Your task to perform on an android device: toggle improve location accuracy Image 0: 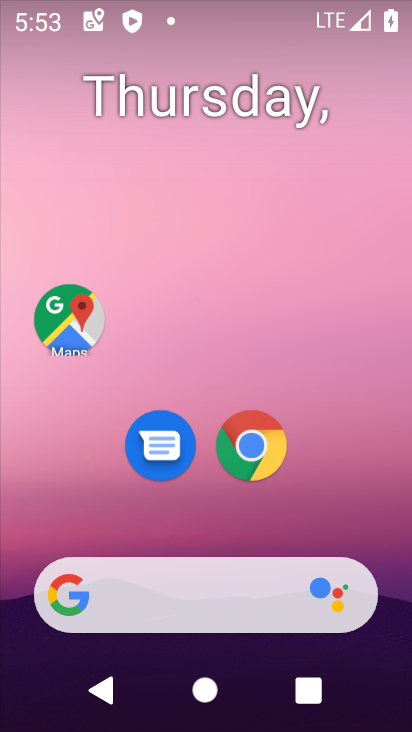
Step 0: drag from (309, 514) to (321, 85)
Your task to perform on an android device: toggle improve location accuracy Image 1: 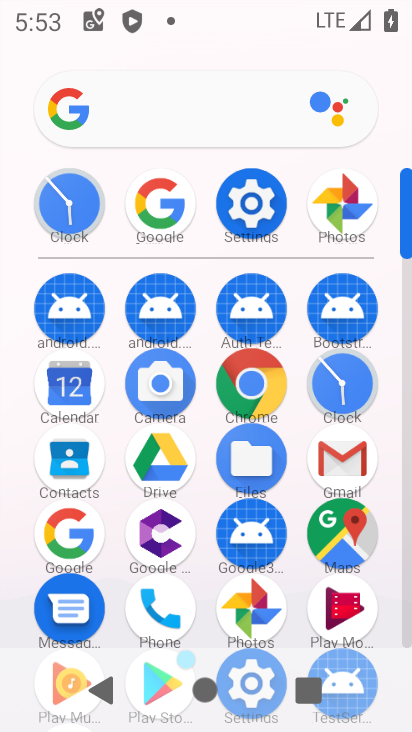
Step 1: click (247, 211)
Your task to perform on an android device: toggle improve location accuracy Image 2: 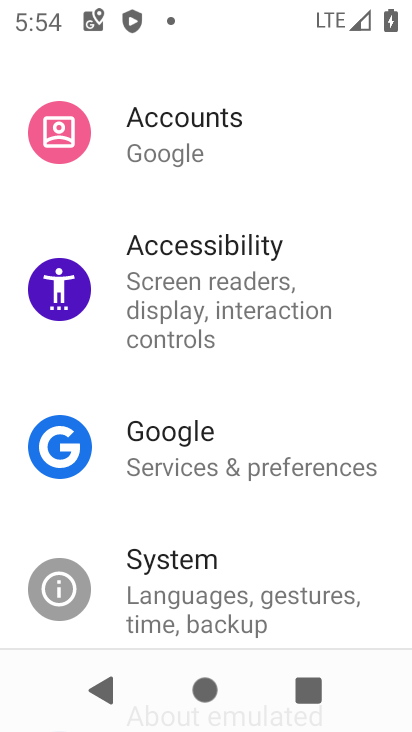
Step 2: drag from (263, 550) to (336, 220)
Your task to perform on an android device: toggle improve location accuracy Image 3: 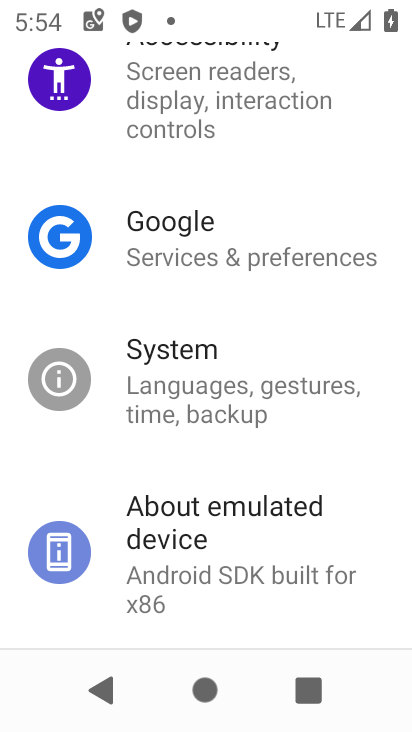
Step 3: drag from (261, 160) to (241, 678)
Your task to perform on an android device: toggle improve location accuracy Image 4: 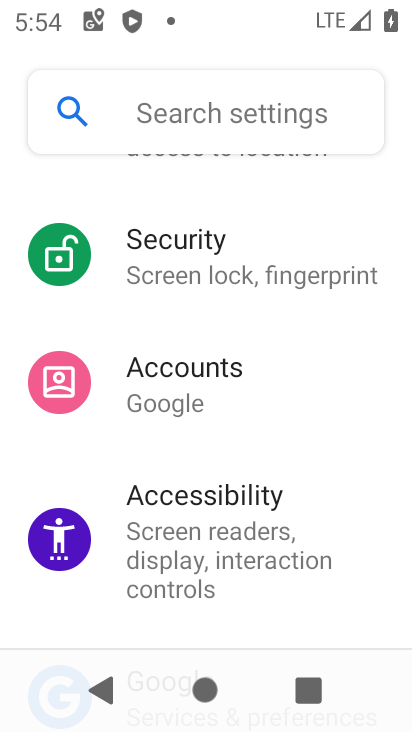
Step 4: drag from (324, 226) to (298, 625)
Your task to perform on an android device: toggle improve location accuracy Image 5: 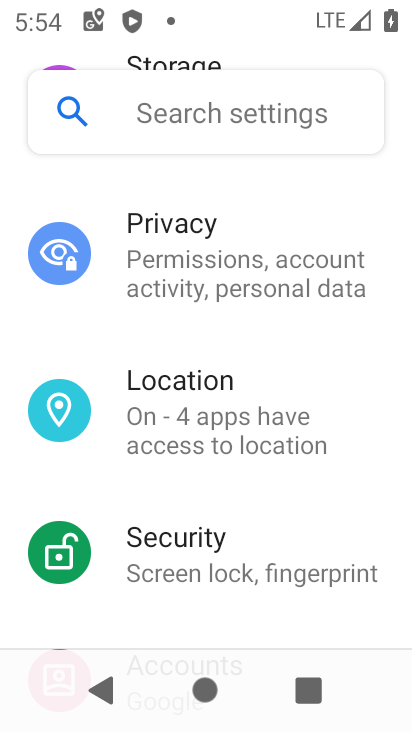
Step 5: click (218, 426)
Your task to perform on an android device: toggle improve location accuracy Image 6: 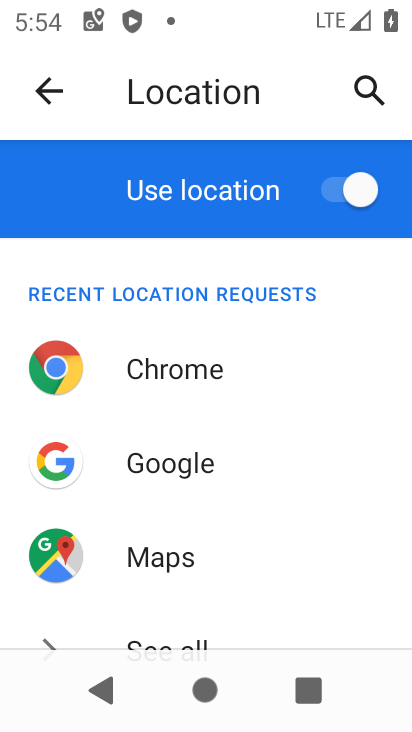
Step 6: click (336, 200)
Your task to perform on an android device: toggle improve location accuracy Image 7: 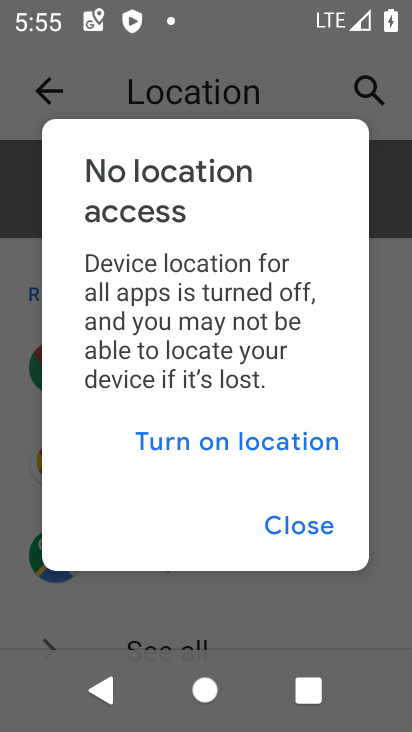
Step 7: click (285, 514)
Your task to perform on an android device: toggle improve location accuracy Image 8: 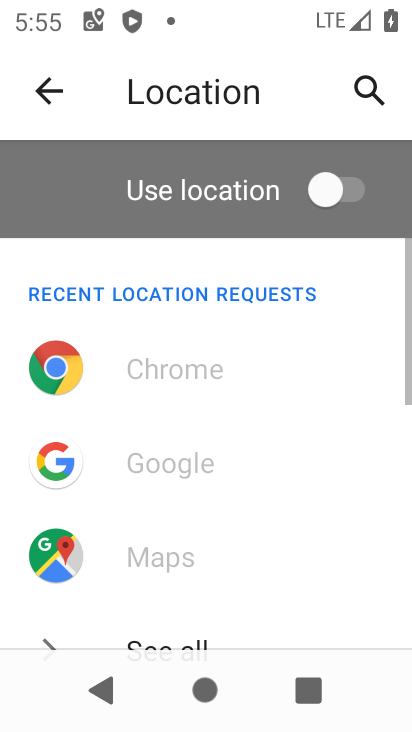
Step 8: task complete